Your task to perform on an android device: Set the phone to "Do not disturb". Image 0: 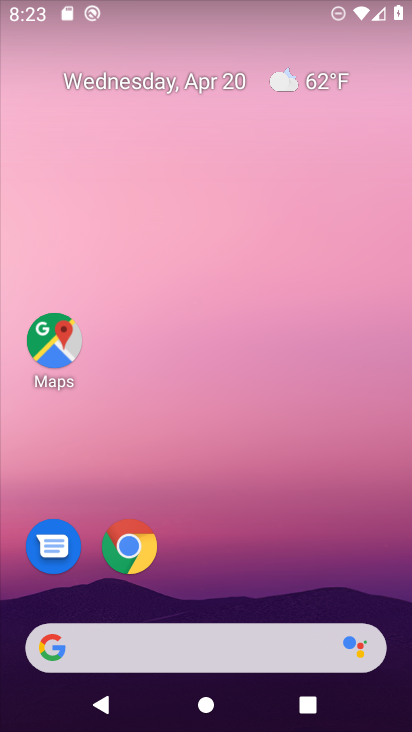
Step 0: drag from (266, 553) to (280, 115)
Your task to perform on an android device: Set the phone to "Do not disturb". Image 1: 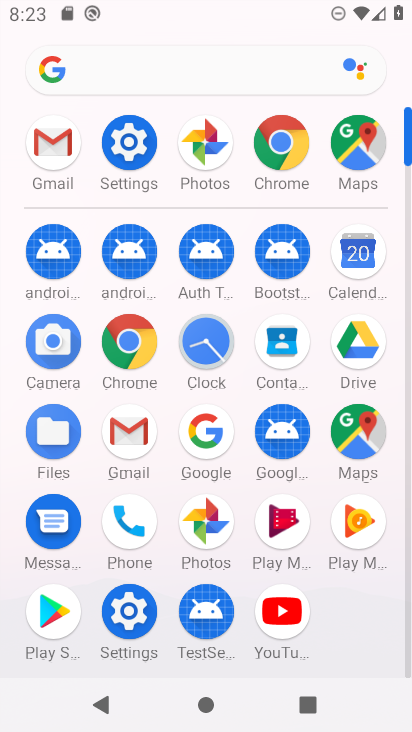
Step 1: click (132, 138)
Your task to perform on an android device: Set the phone to "Do not disturb". Image 2: 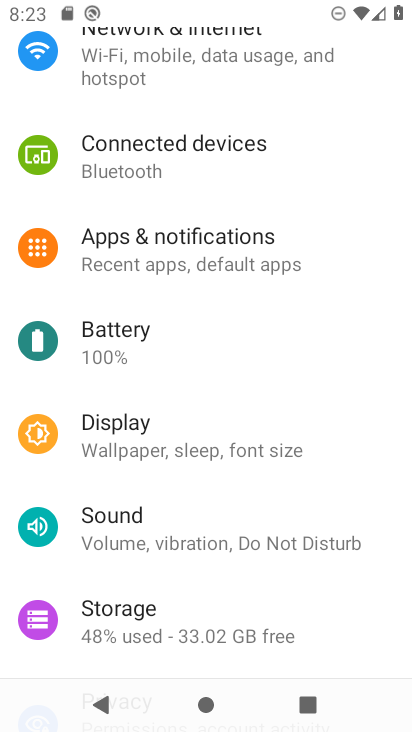
Step 2: click (185, 525)
Your task to perform on an android device: Set the phone to "Do not disturb". Image 3: 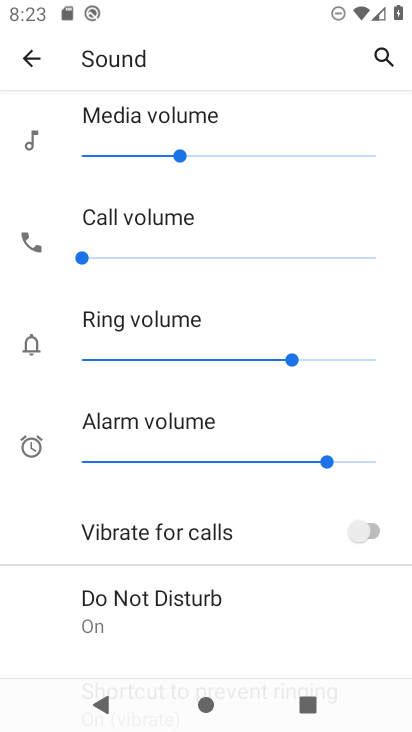
Step 3: click (220, 604)
Your task to perform on an android device: Set the phone to "Do not disturb". Image 4: 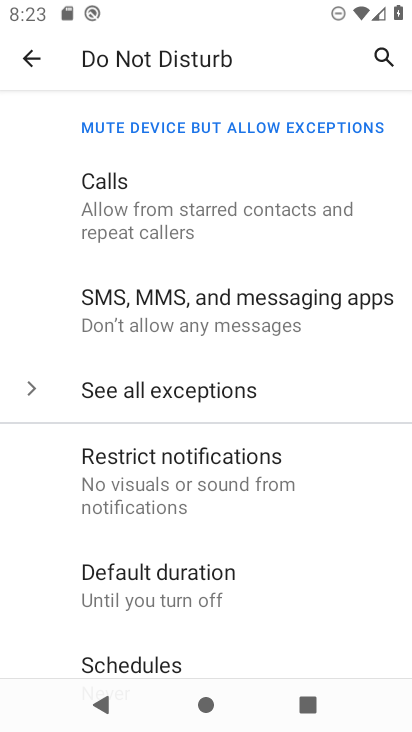
Step 4: task complete